Your task to perform on an android device: Open calendar and show me the first week of next month Image 0: 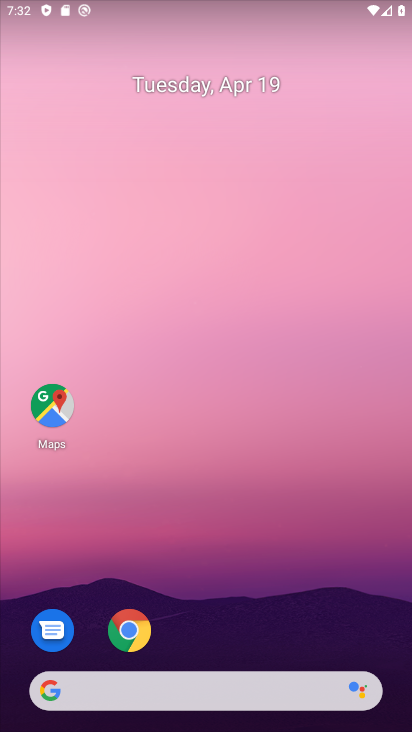
Step 0: drag from (198, 661) to (121, 169)
Your task to perform on an android device: Open calendar and show me the first week of next month Image 1: 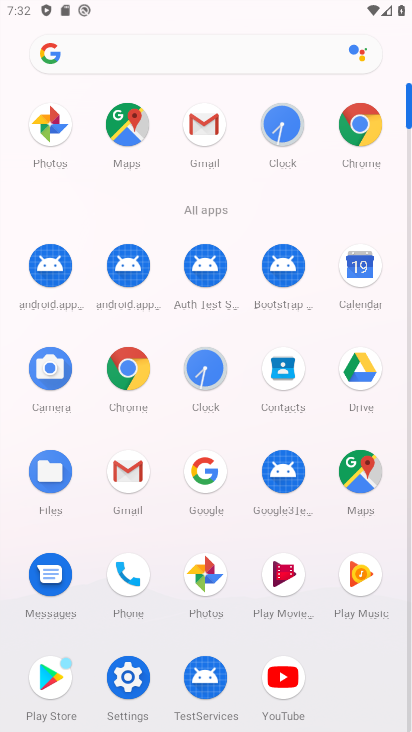
Step 1: click (356, 271)
Your task to perform on an android device: Open calendar and show me the first week of next month Image 2: 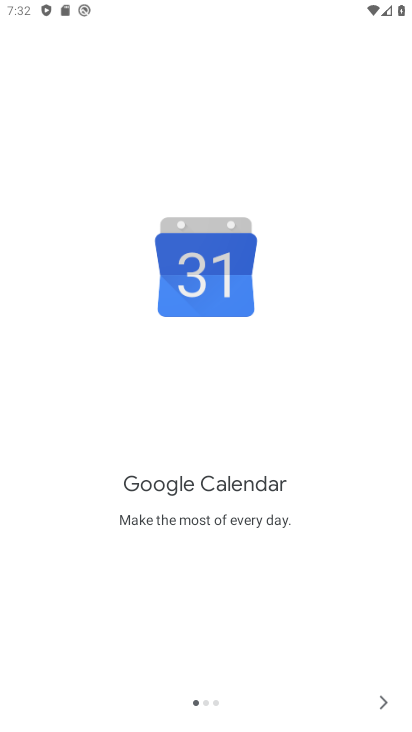
Step 2: click (387, 694)
Your task to perform on an android device: Open calendar and show me the first week of next month Image 3: 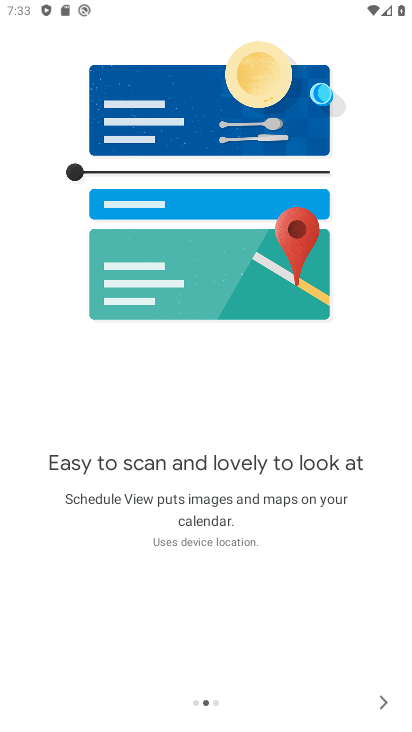
Step 3: click (387, 694)
Your task to perform on an android device: Open calendar and show me the first week of next month Image 4: 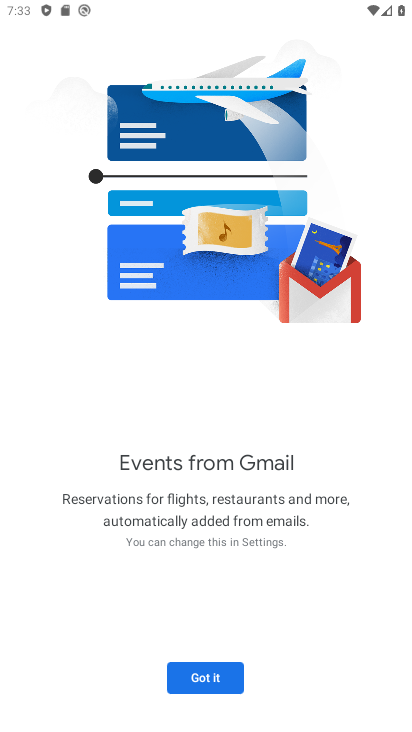
Step 4: click (219, 670)
Your task to perform on an android device: Open calendar and show me the first week of next month Image 5: 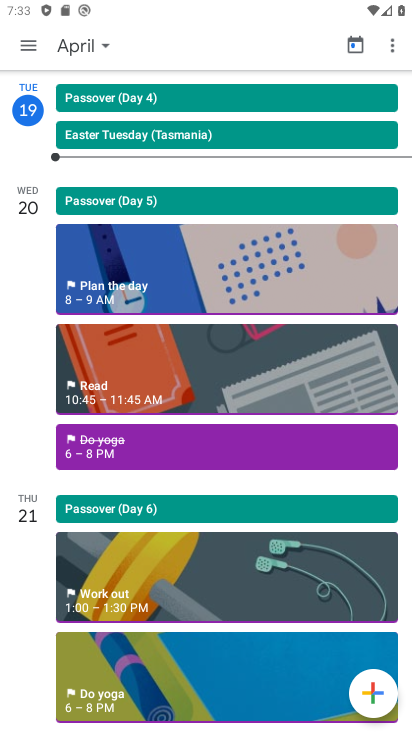
Step 5: click (28, 37)
Your task to perform on an android device: Open calendar and show me the first week of next month Image 6: 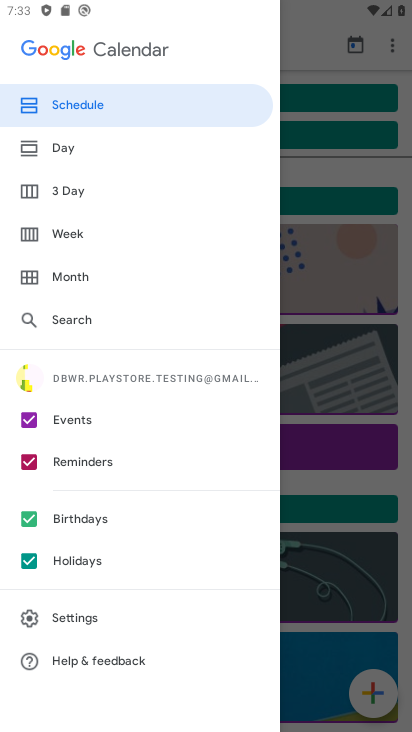
Step 6: click (59, 231)
Your task to perform on an android device: Open calendar and show me the first week of next month Image 7: 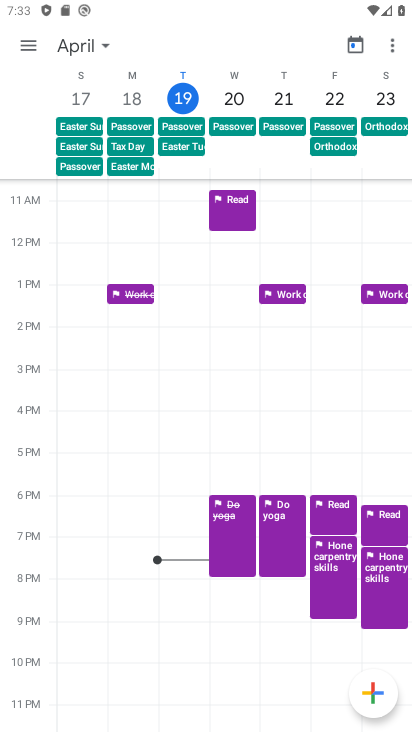
Step 7: task complete